Your task to perform on an android device: Open eBay Image 0: 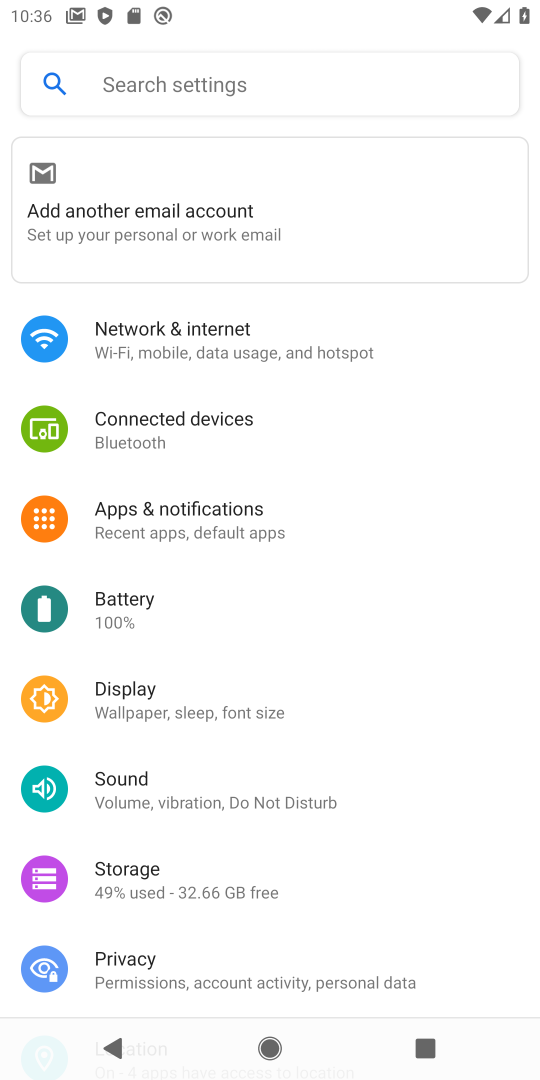
Step 0: press home button
Your task to perform on an android device: Open eBay Image 1: 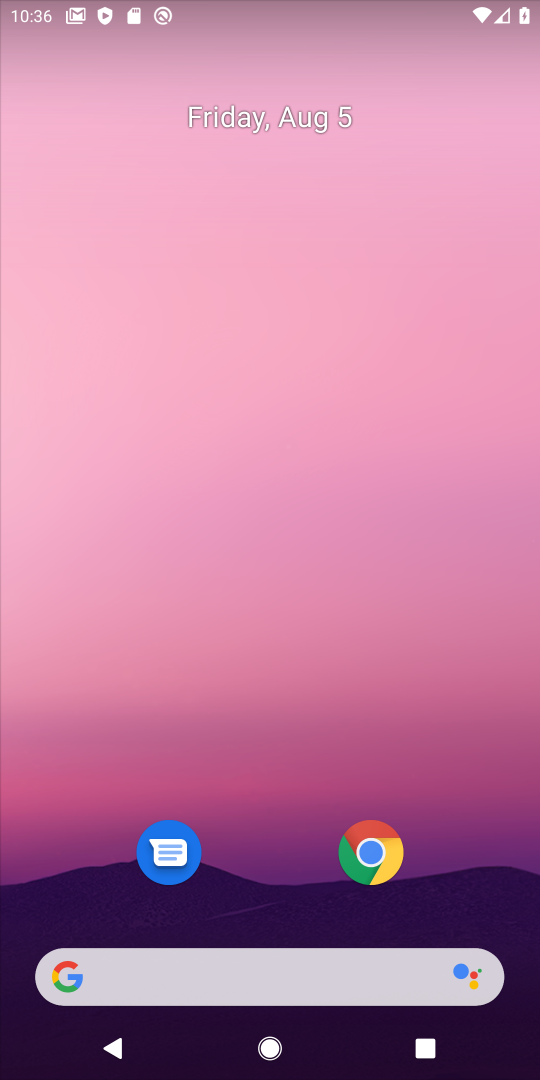
Step 1: drag from (292, 681) to (292, 329)
Your task to perform on an android device: Open eBay Image 2: 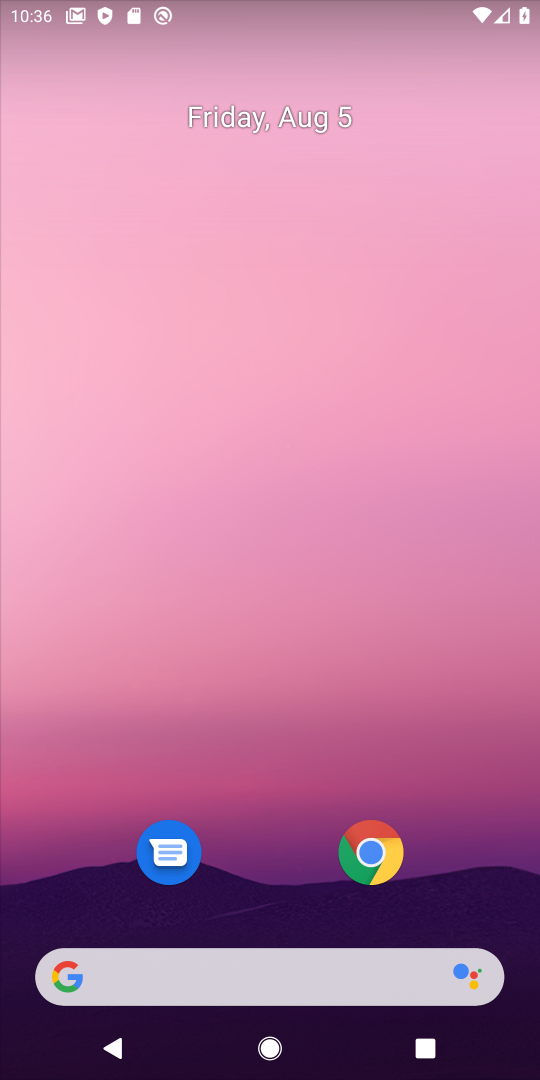
Step 2: click (359, 880)
Your task to perform on an android device: Open eBay Image 3: 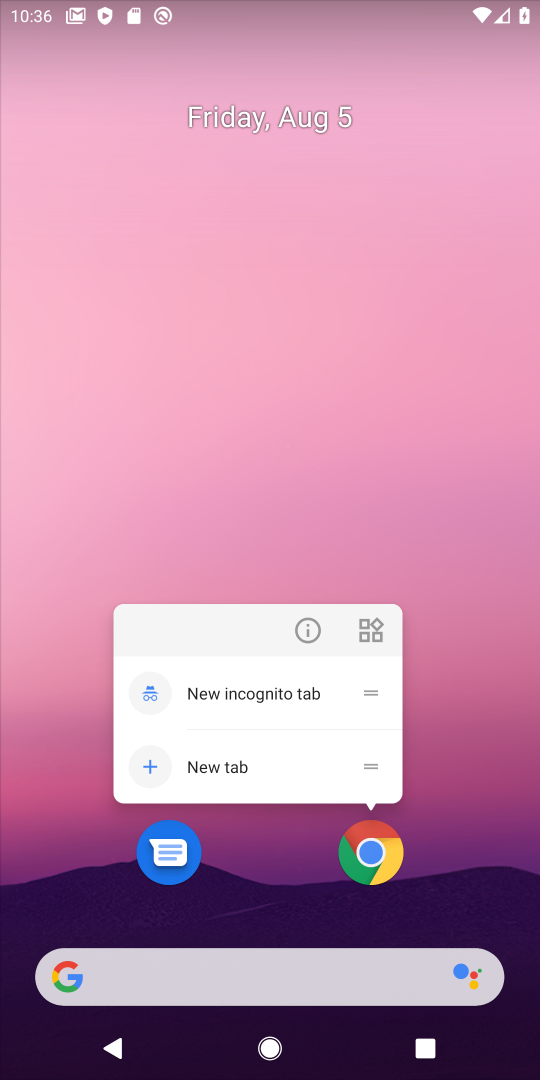
Step 3: click (377, 844)
Your task to perform on an android device: Open eBay Image 4: 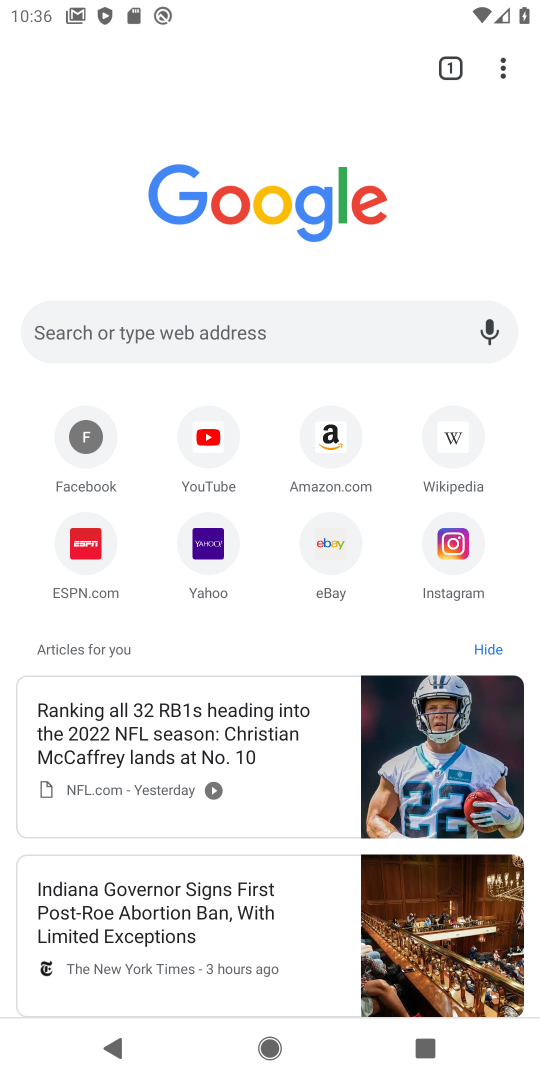
Step 4: click (350, 544)
Your task to perform on an android device: Open eBay Image 5: 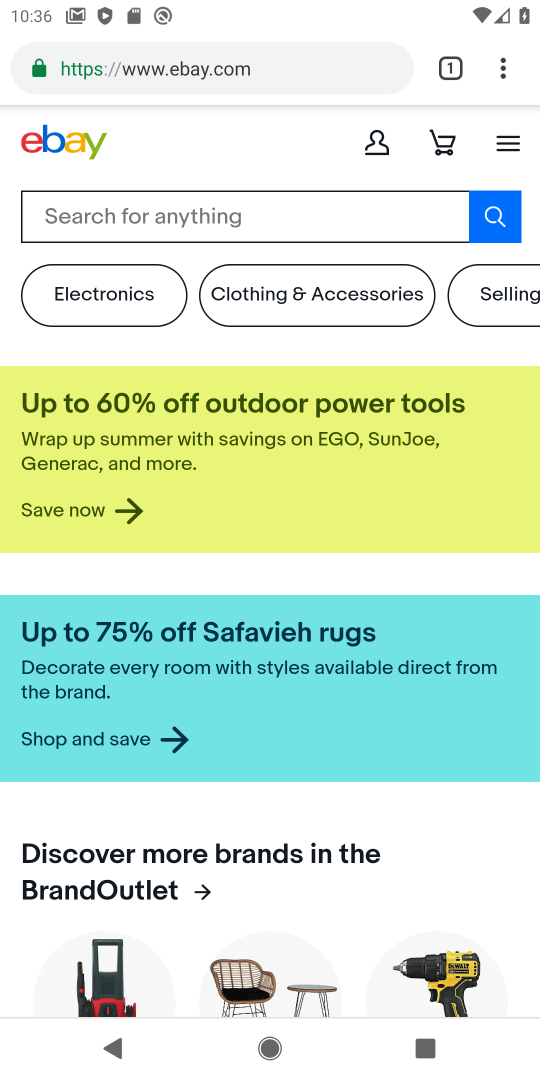
Step 5: task complete